Your task to perform on an android device: Open calendar and show me the third week of next month Image 0: 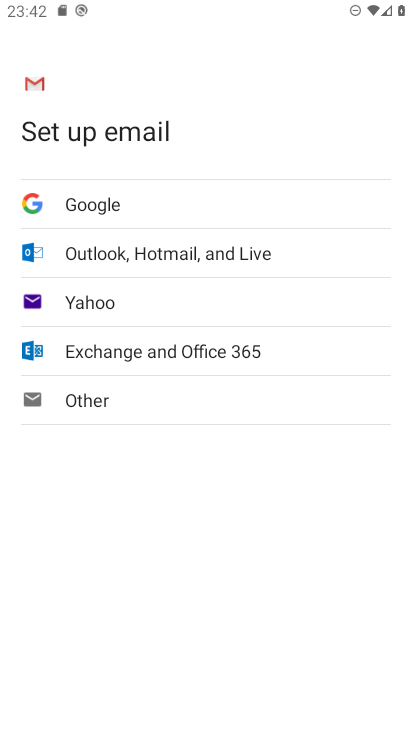
Step 0: press home button
Your task to perform on an android device: Open calendar and show me the third week of next month Image 1: 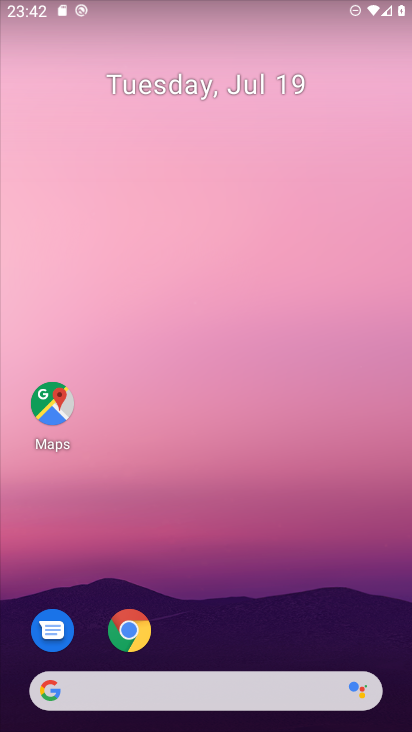
Step 1: drag from (189, 616) to (200, 174)
Your task to perform on an android device: Open calendar and show me the third week of next month Image 2: 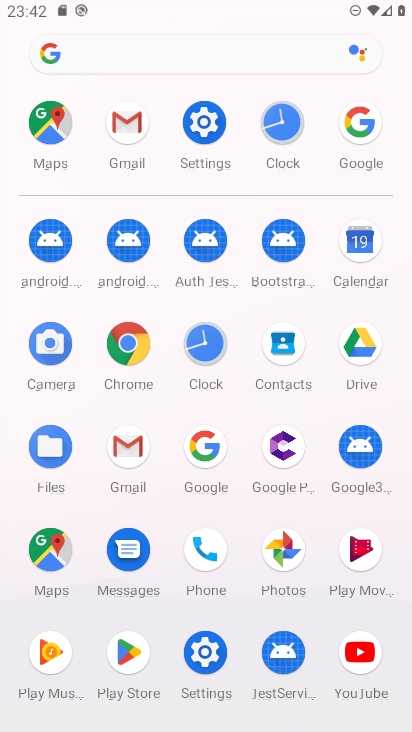
Step 2: click (340, 233)
Your task to perform on an android device: Open calendar and show me the third week of next month Image 3: 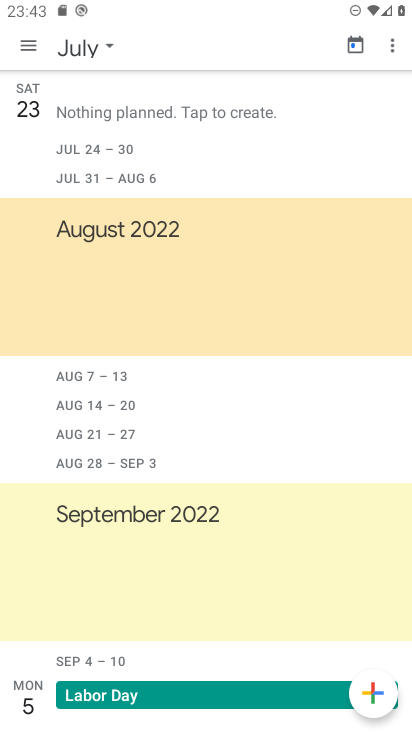
Step 3: click (107, 47)
Your task to perform on an android device: Open calendar and show me the third week of next month Image 4: 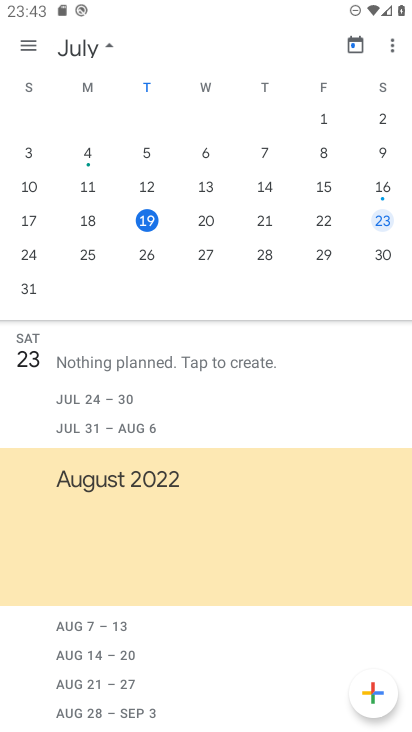
Step 4: drag from (355, 151) to (0, 107)
Your task to perform on an android device: Open calendar and show me the third week of next month Image 5: 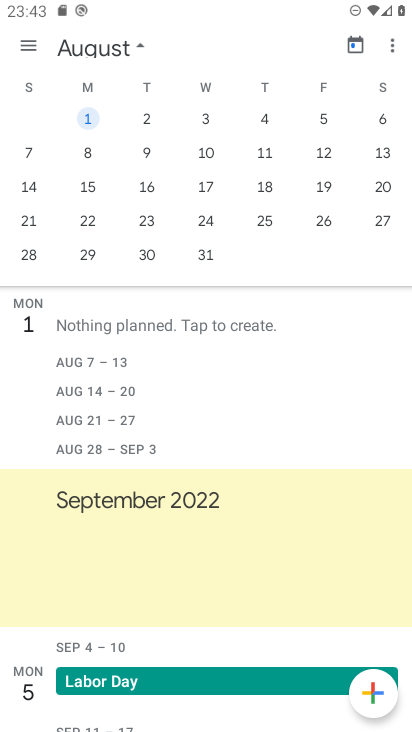
Step 5: click (33, 197)
Your task to perform on an android device: Open calendar and show me the third week of next month Image 6: 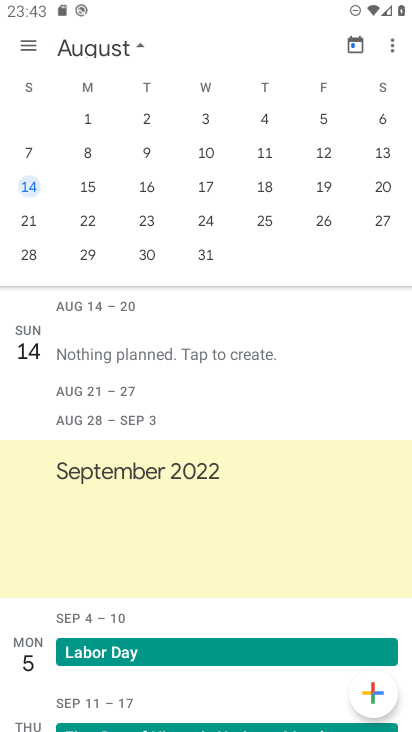
Step 6: task complete